Your task to perform on an android device: Go to calendar. Show me events next week Image 0: 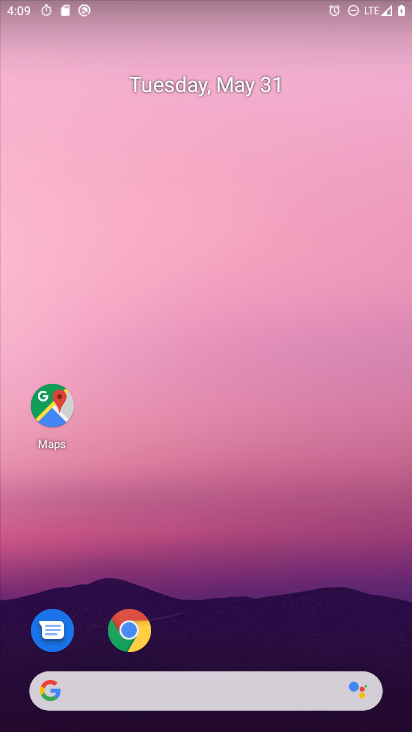
Step 0: drag from (280, 697) to (351, 157)
Your task to perform on an android device: Go to calendar. Show me events next week Image 1: 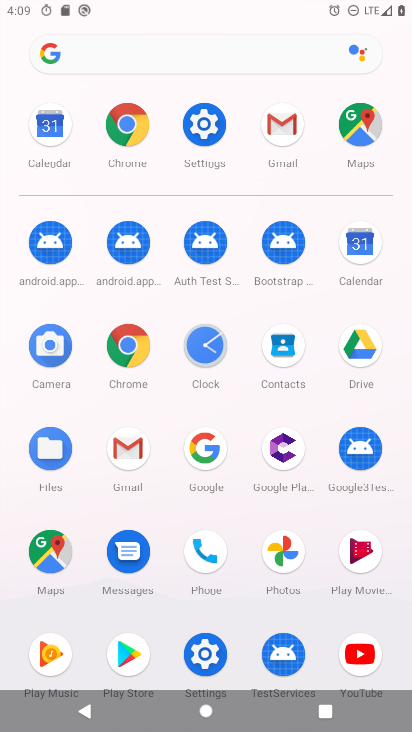
Step 1: click (377, 255)
Your task to perform on an android device: Go to calendar. Show me events next week Image 2: 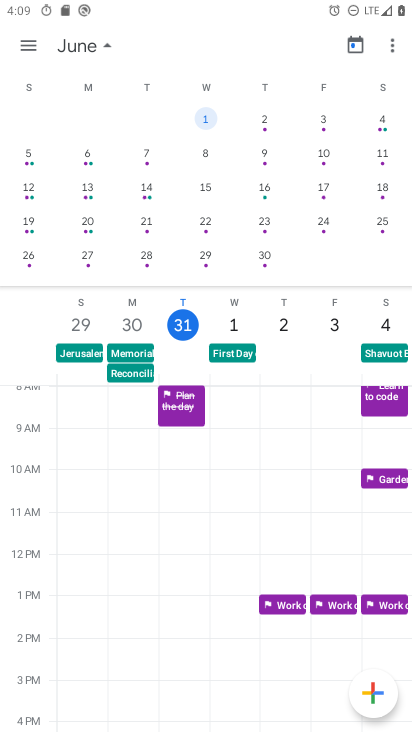
Step 2: drag from (355, 196) to (71, 206)
Your task to perform on an android device: Go to calendar. Show me events next week Image 3: 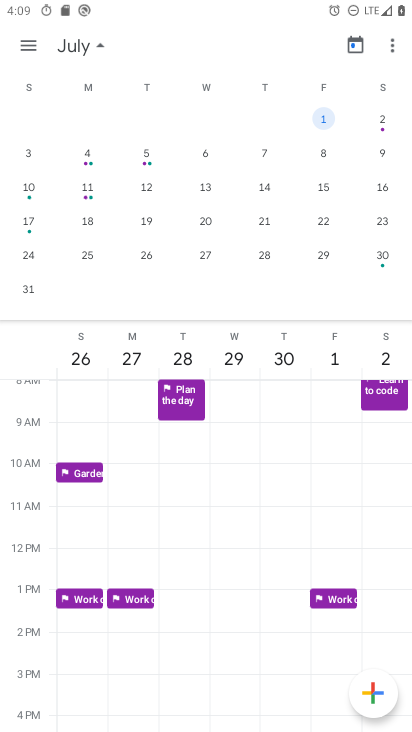
Step 3: drag from (140, 192) to (392, 199)
Your task to perform on an android device: Go to calendar. Show me events next week Image 4: 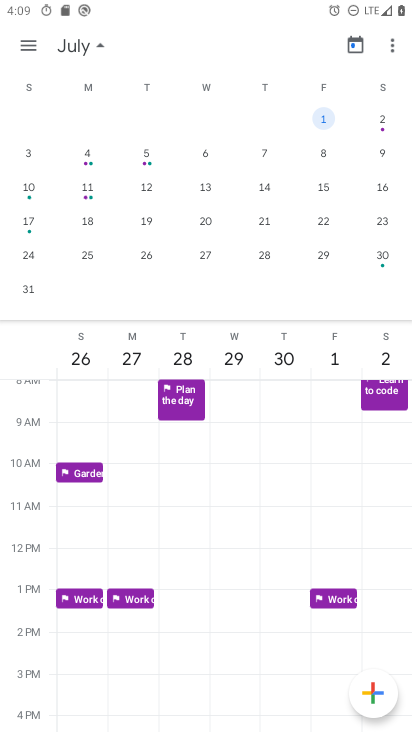
Step 4: drag from (28, 194) to (398, 162)
Your task to perform on an android device: Go to calendar. Show me events next week Image 5: 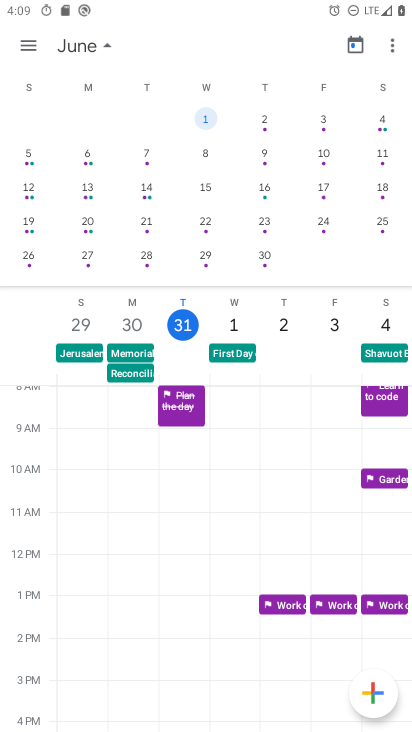
Step 5: click (328, 126)
Your task to perform on an android device: Go to calendar. Show me events next week Image 6: 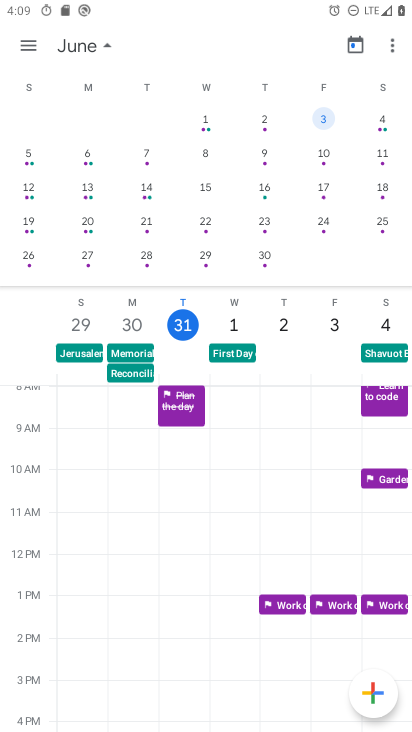
Step 6: click (21, 36)
Your task to perform on an android device: Go to calendar. Show me events next week Image 7: 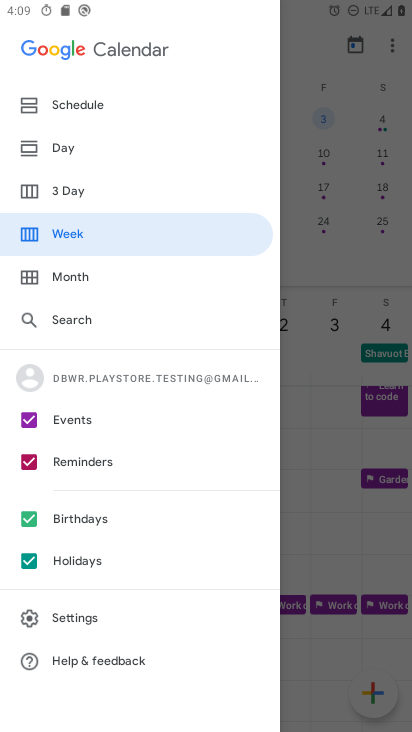
Step 7: click (77, 238)
Your task to perform on an android device: Go to calendar. Show me events next week Image 8: 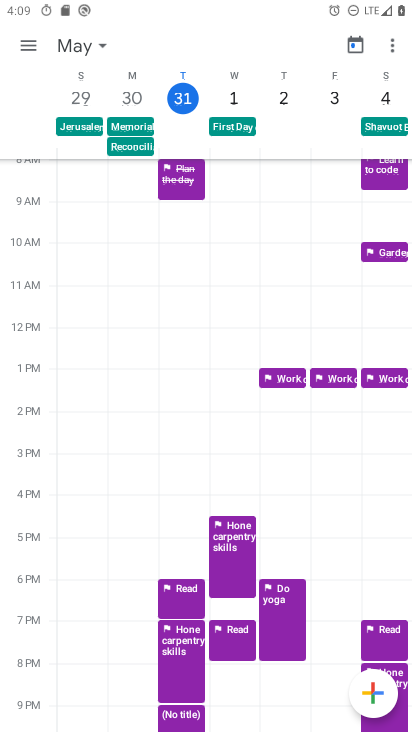
Step 8: task complete